Your task to perform on an android device: What's on my calendar tomorrow? Image 0: 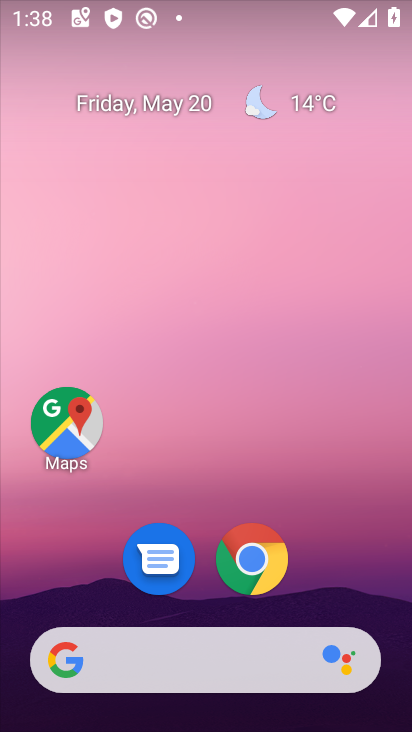
Step 0: drag from (372, 592) to (323, 47)
Your task to perform on an android device: What's on my calendar tomorrow? Image 1: 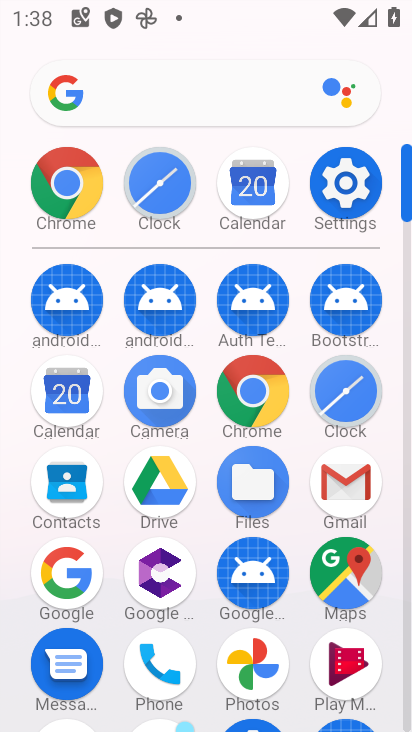
Step 1: click (68, 412)
Your task to perform on an android device: What's on my calendar tomorrow? Image 2: 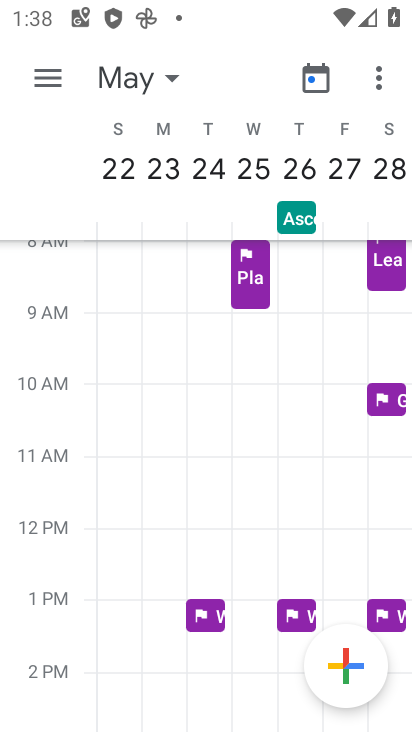
Step 2: task complete